Your task to perform on an android device: Open eBay Image 0: 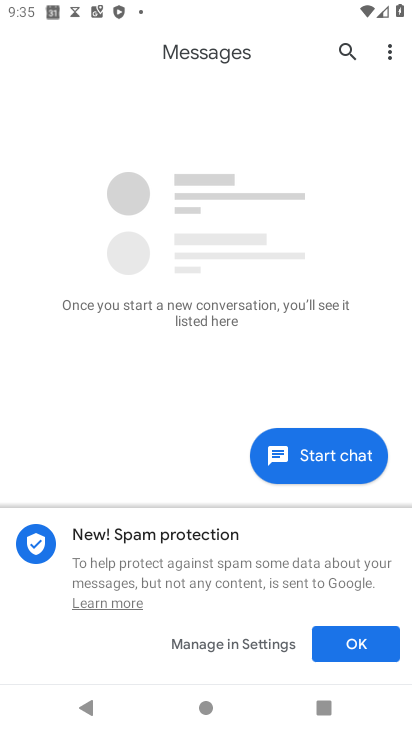
Step 0: press home button
Your task to perform on an android device: Open eBay Image 1: 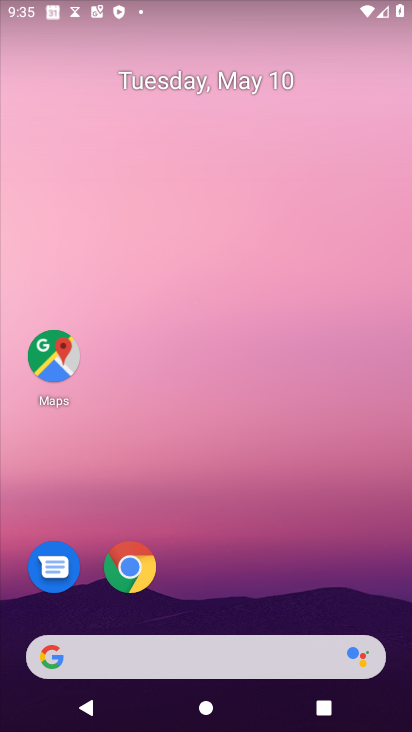
Step 1: click (124, 568)
Your task to perform on an android device: Open eBay Image 2: 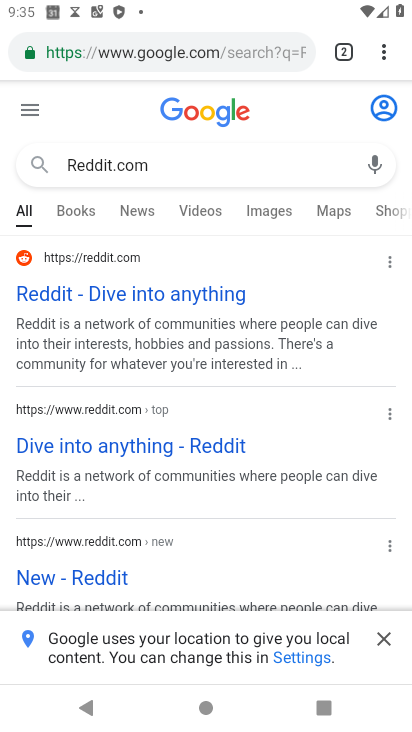
Step 2: click (347, 50)
Your task to perform on an android device: Open eBay Image 3: 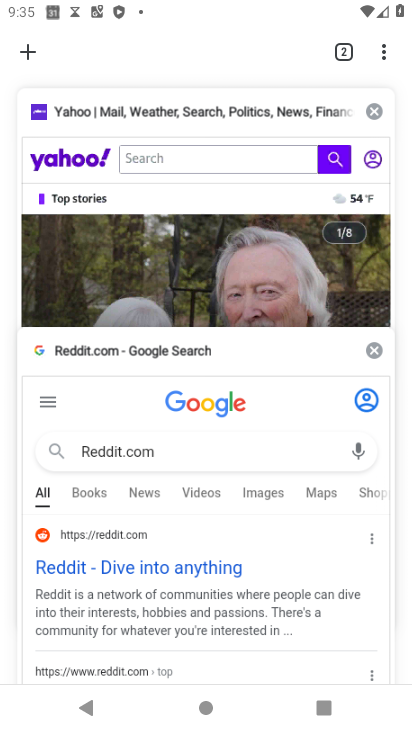
Step 3: click (367, 114)
Your task to perform on an android device: Open eBay Image 4: 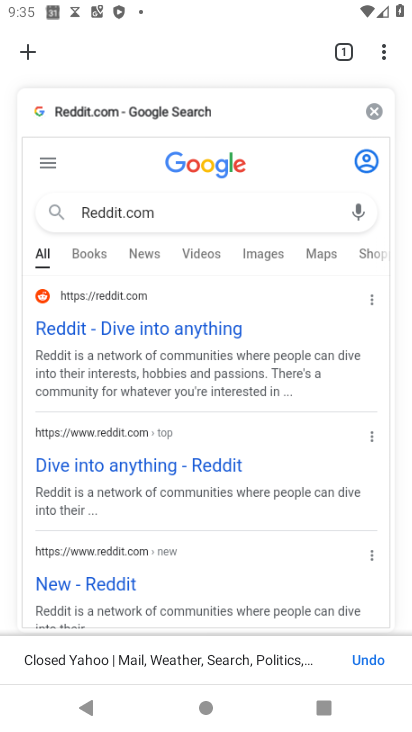
Step 4: click (371, 113)
Your task to perform on an android device: Open eBay Image 5: 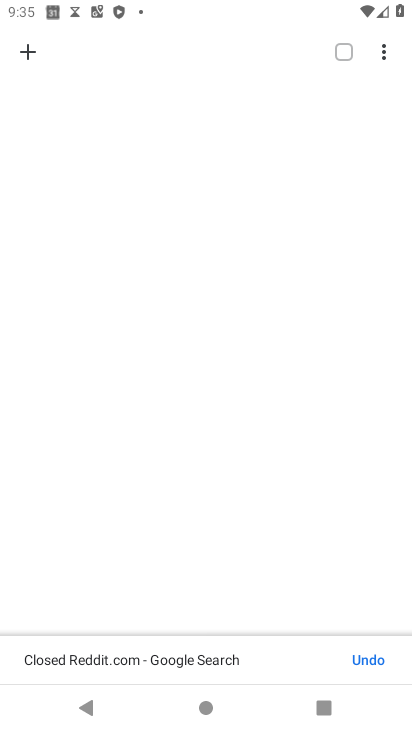
Step 5: click (28, 56)
Your task to perform on an android device: Open eBay Image 6: 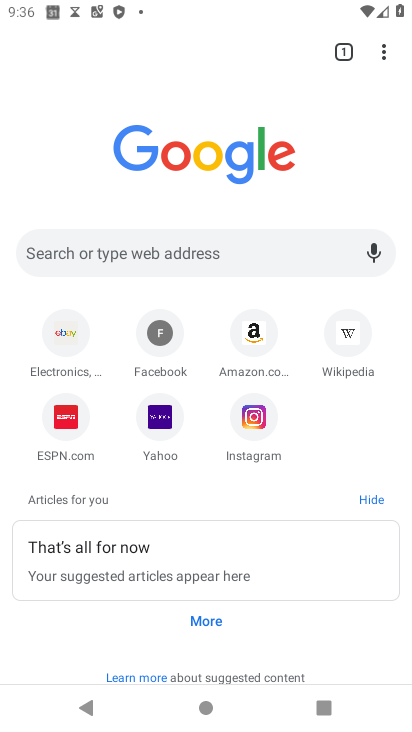
Step 6: click (53, 325)
Your task to perform on an android device: Open eBay Image 7: 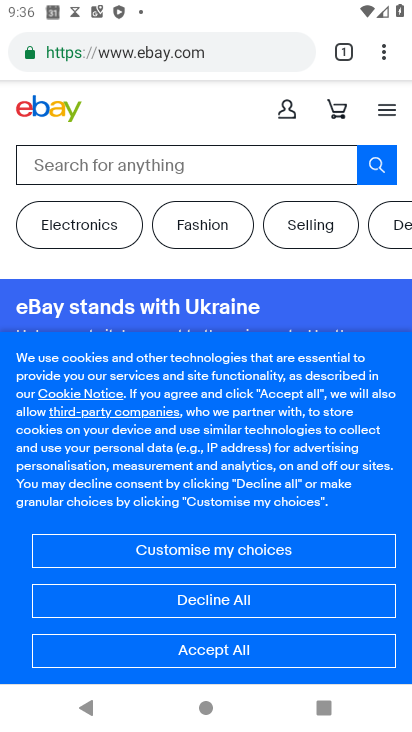
Step 7: task complete